Your task to perform on an android device: toggle javascript in the chrome app Image 0: 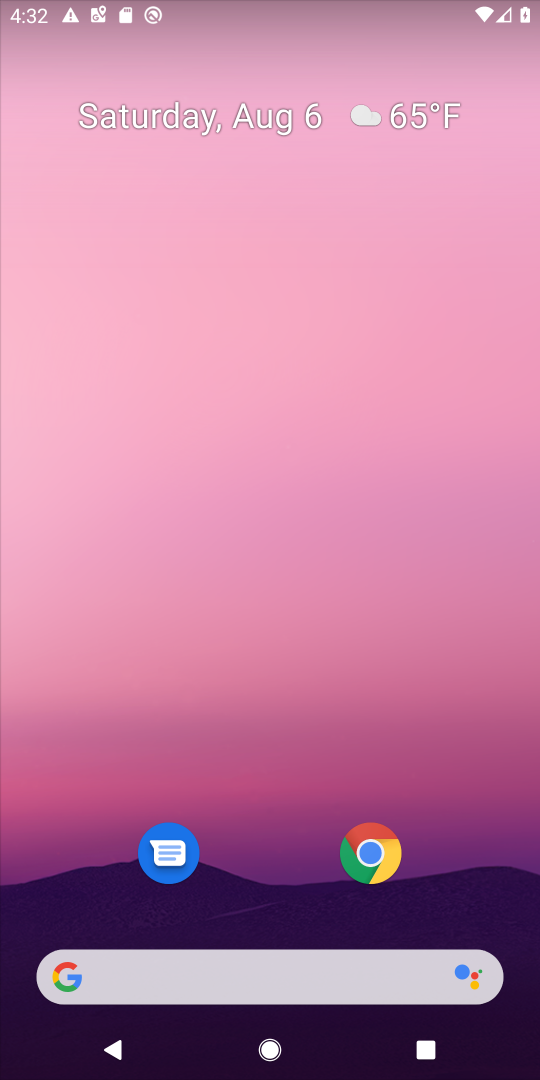
Step 0: click (396, 847)
Your task to perform on an android device: toggle javascript in the chrome app Image 1: 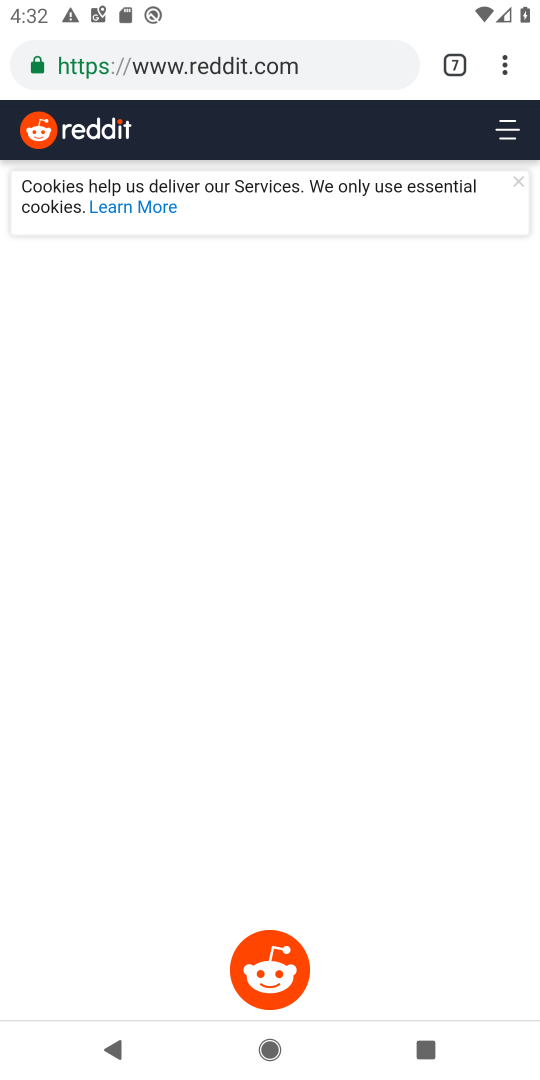
Step 1: drag from (513, 59) to (266, 795)
Your task to perform on an android device: toggle javascript in the chrome app Image 2: 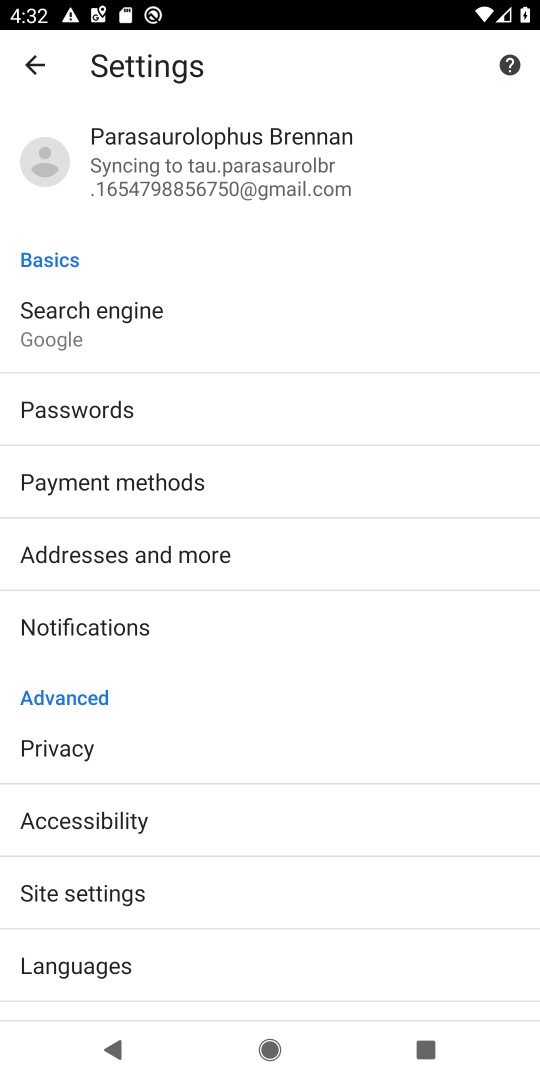
Step 2: click (152, 892)
Your task to perform on an android device: toggle javascript in the chrome app Image 3: 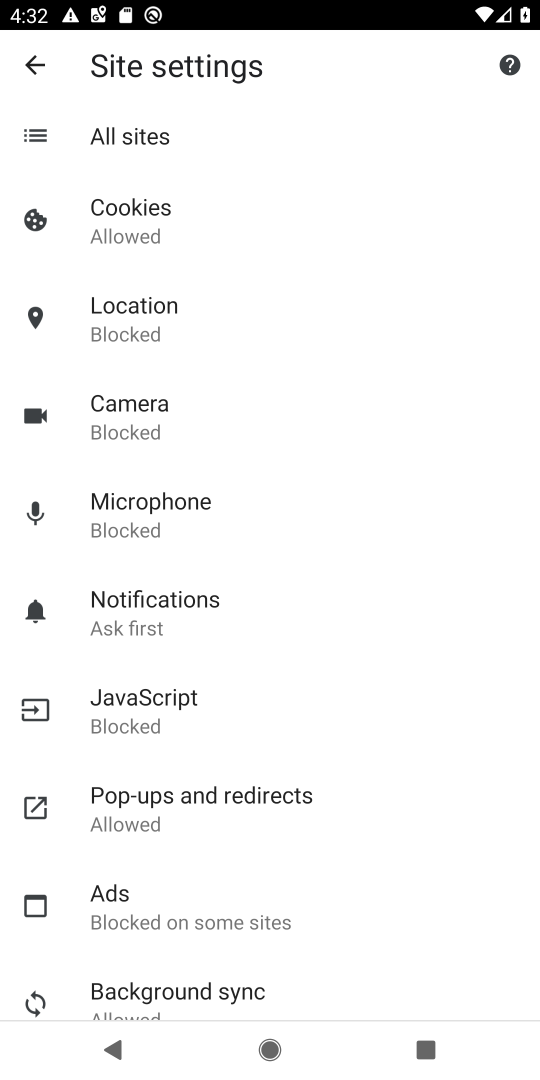
Step 3: click (152, 704)
Your task to perform on an android device: toggle javascript in the chrome app Image 4: 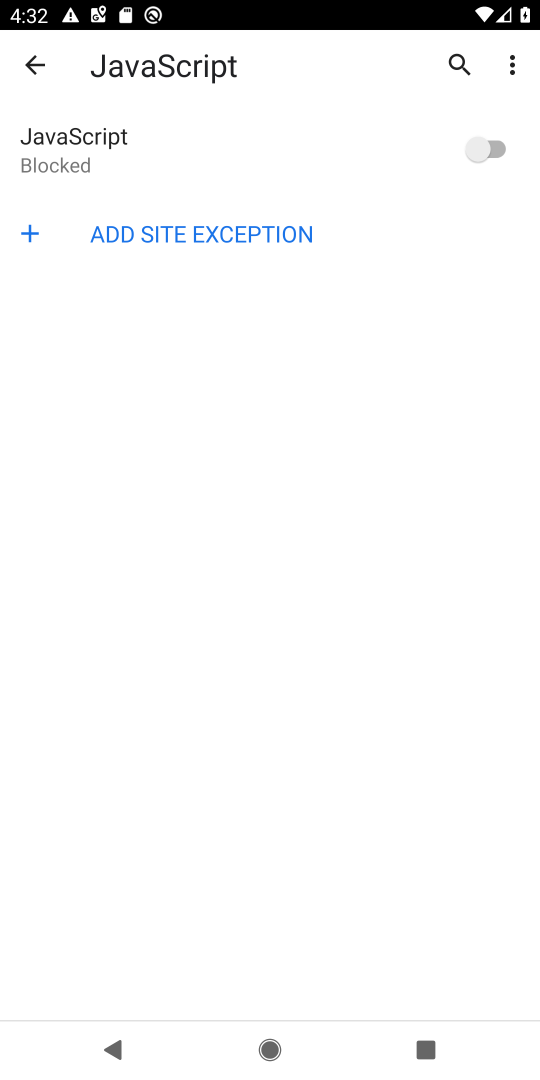
Step 4: click (489, 152)
Your task to perform on an android device: toggle javascript in the chrome app Image 5: 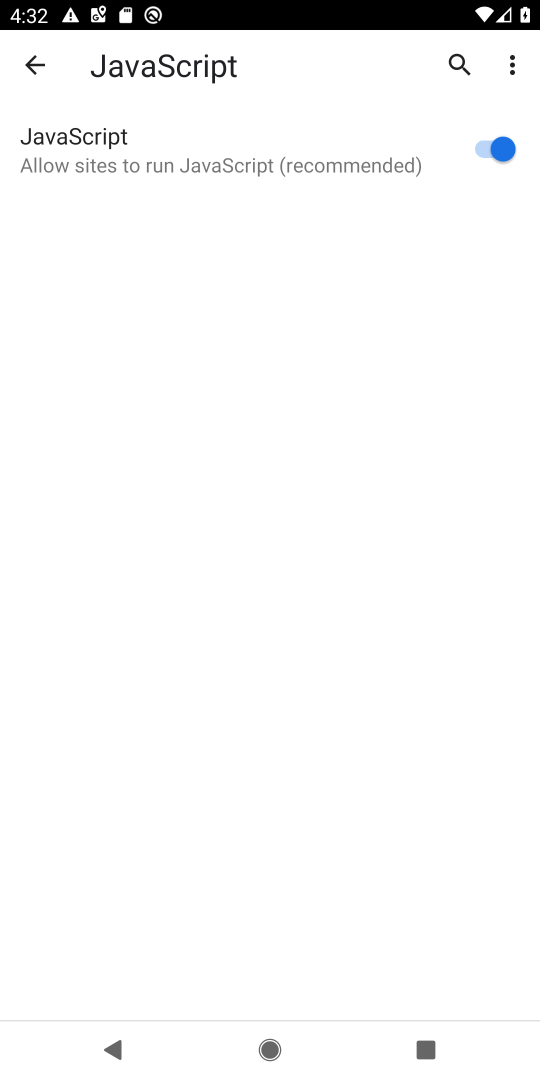
Step 5: task complete